Your task to perform on an android device: turn vacation reply on in the gmail app Image 0: 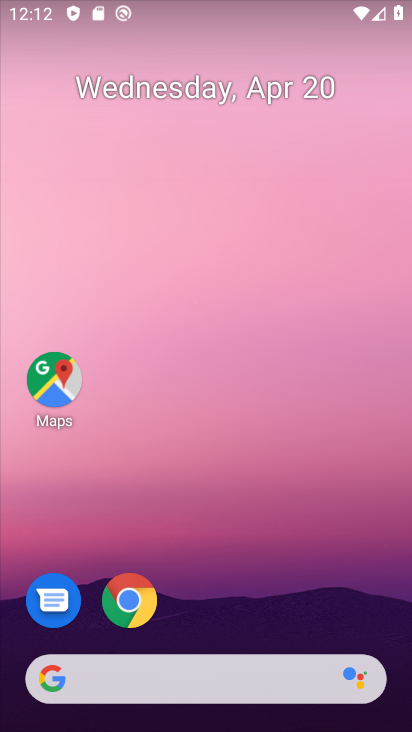
Step 0: drag from (357, 467) to (2, 433)
Your task to perform on an android device: turn vacation reply on in the gmail app Image 1: 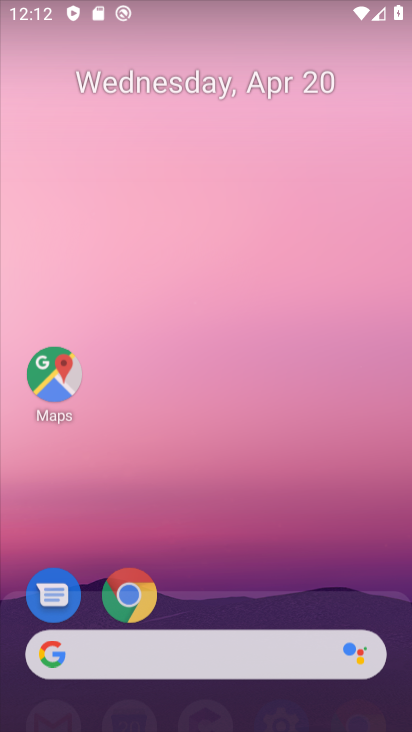
Step 1: drag from (8, 479) to (17, 0)
Your task to perform on an android device: turn vacation reply on in the gmail app Image 2: 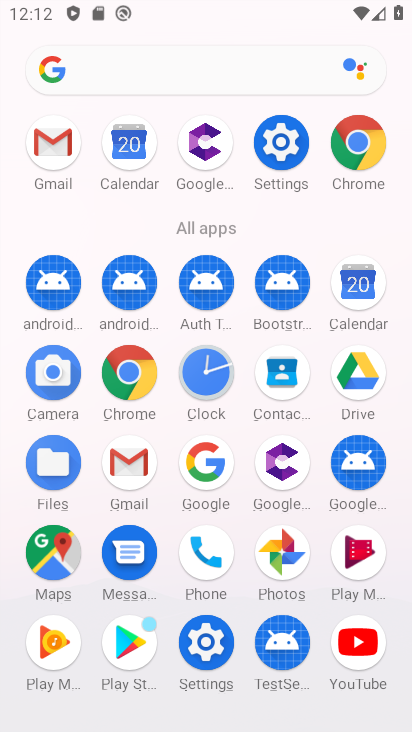
Step 2: drag from (3, 405) to (8, 272)
Your task to perform on an android device: turn vacation reply on in the gmail app Image 3: 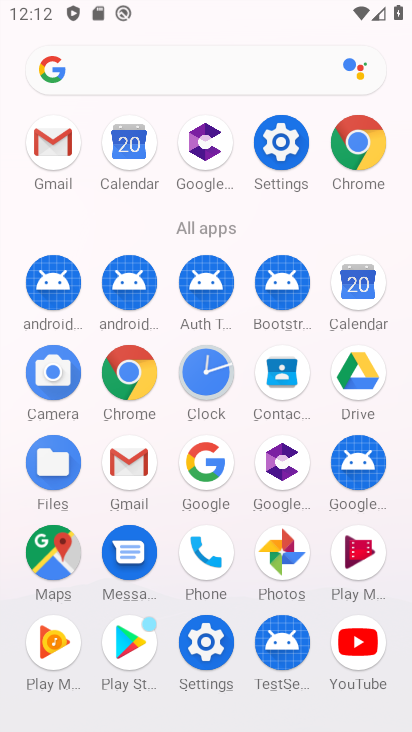
Step 3: drag from (0, 473) to (0, 278)
Your task to perform on an android device: turn vacation reply on in the gmail app Image 4: 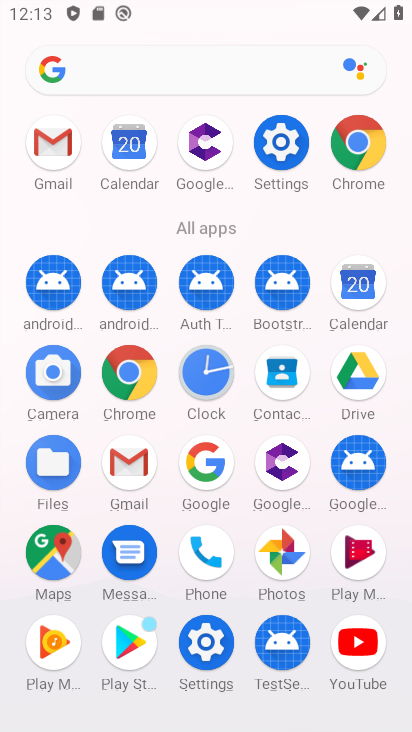
Step 4: click (127, 454)
Your task to perform on an android device: turn vacation reply on in the gmail app Image 5: 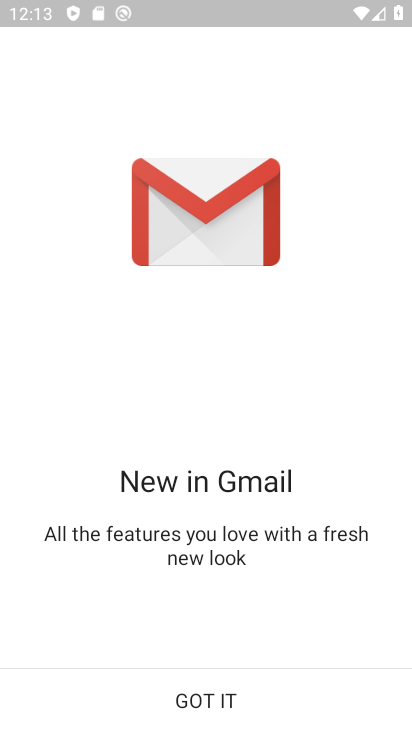
Step 5: click (192, 704)
Your task to perform on an android device: turn vacation reply on in the gmail app Image 6: 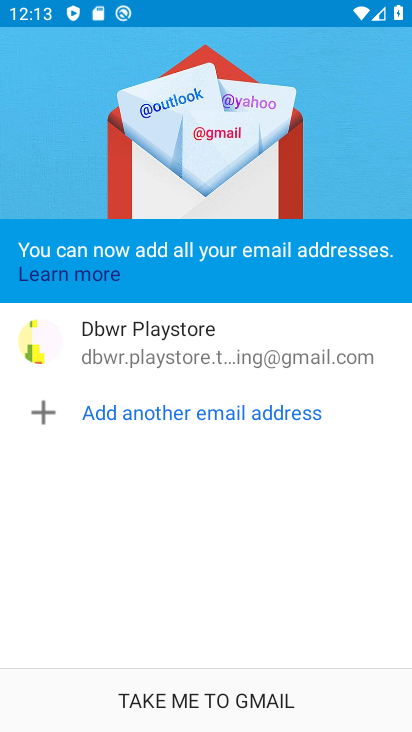
Step 6: click (195, 708)
Your task to perform on an android device: turn vacation reply on in the gmail app Image 7: 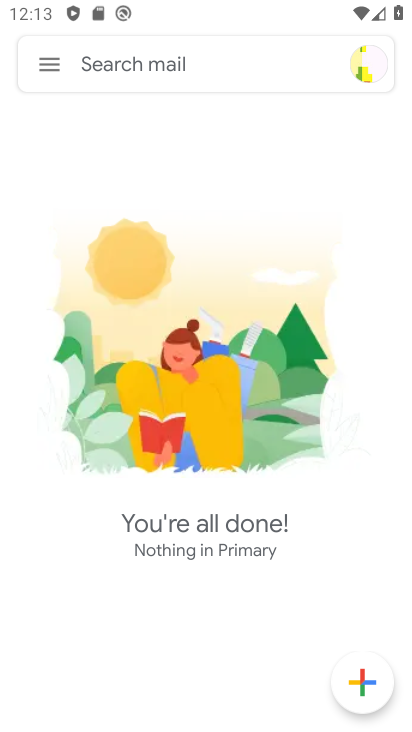
Step 7: click (45, 61)
Your task to perform on an android device: turn vacation reply on in the gmail app Image 8: 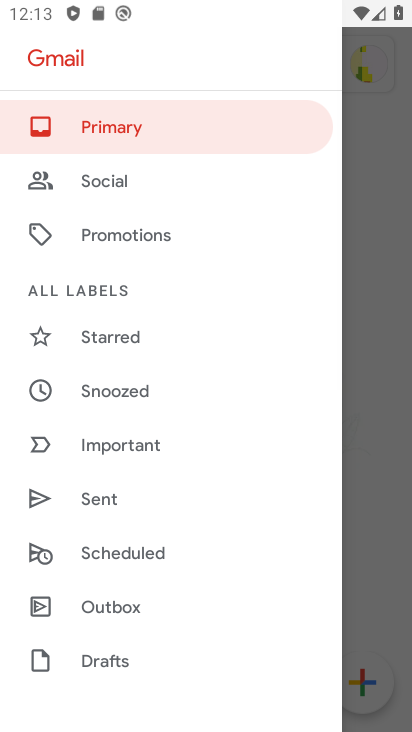
Step 8: drag from (216, 328) to (214, 184)
Your task to perform on an android device: turn vacation reply on in the gmail app Image 9: 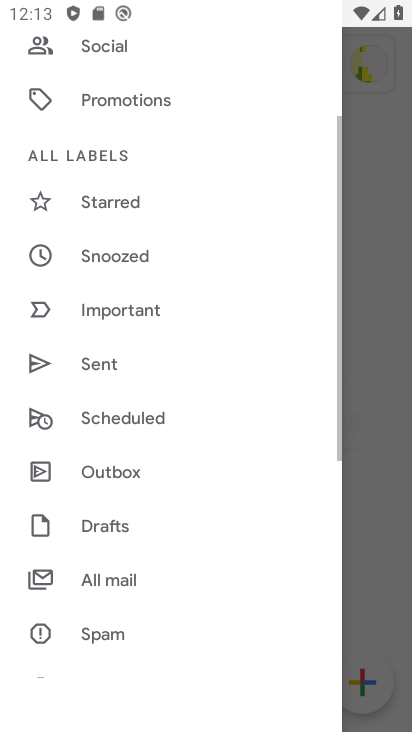
Step 9: drag from (211, 379) to (211, 123)
Your task to perform on an android device: turn vacation reply on in the gmail app Image 10: 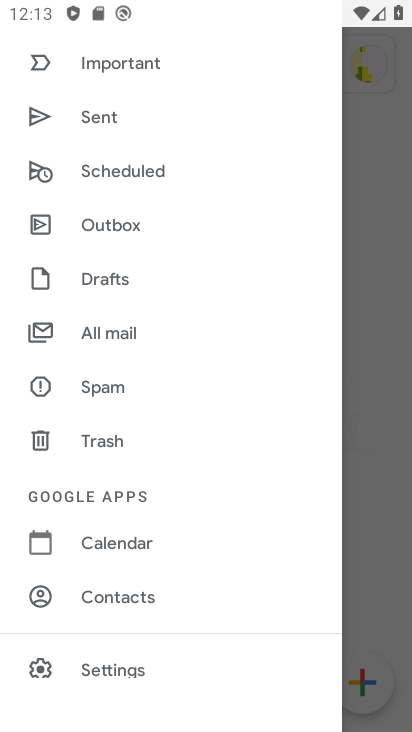
Step 10: click (114, 656)
Your task to perform on an android device: turn vacation reply on in the gmail app Image 11: 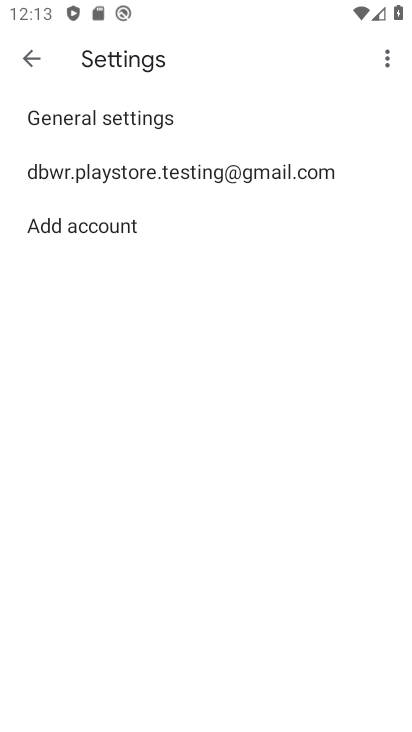
Step 11: click (218, 160)
Your task to perform on an android device: turn vacation reply on in the gmail app Image 12: 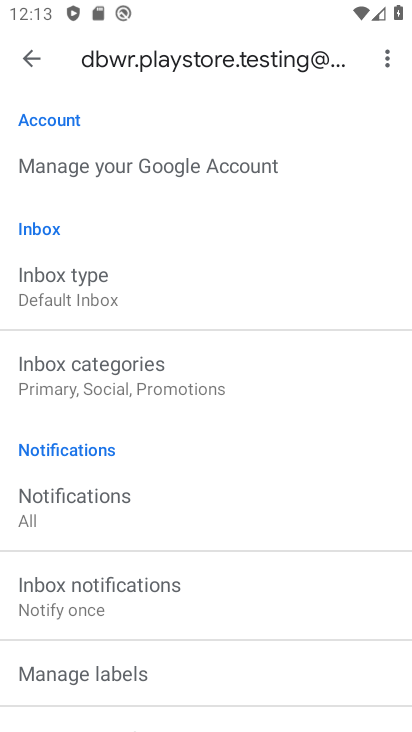
Step 12: drag from (235, 516) to (245, 156)
Your task to perform on an android device: turn vacation reply on in the gmail app Image 13: 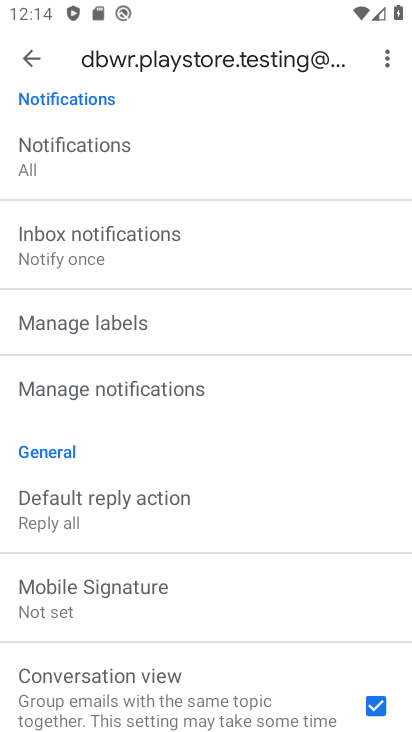
Step 13: drag from (226, 465) to (241, 131)
Your task to perform on an android device: turn vacation reply on in the gmail app Image 14: 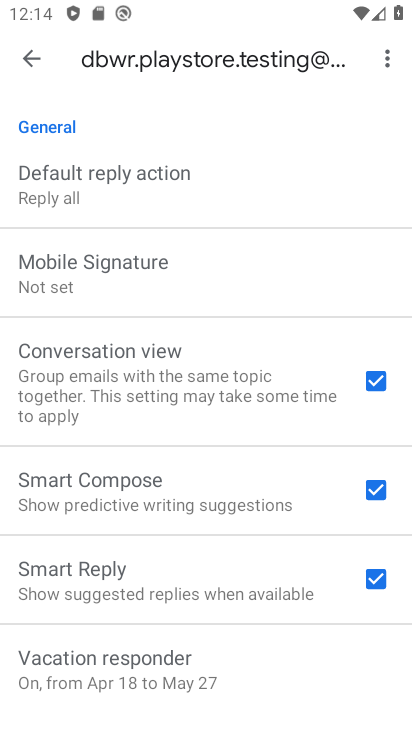
Step 14: click (191, 669)
Your task to perform on an android device: turn vacation reply on in the gmail app Image 15: 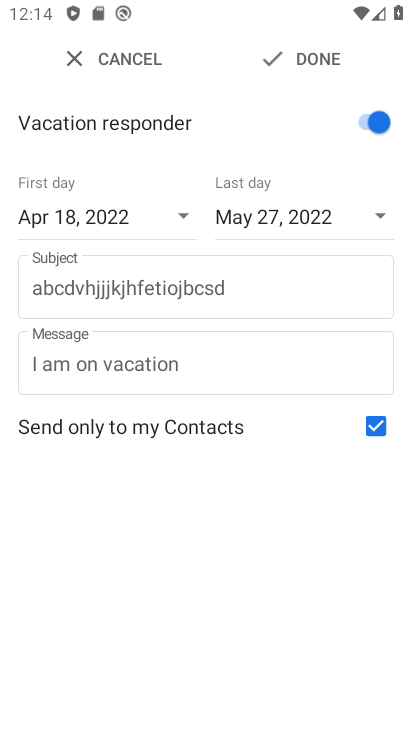
Step 15: click (286, 46)
Your task to perform on an android device: turn vacation reply on in the gmail app Image 16: 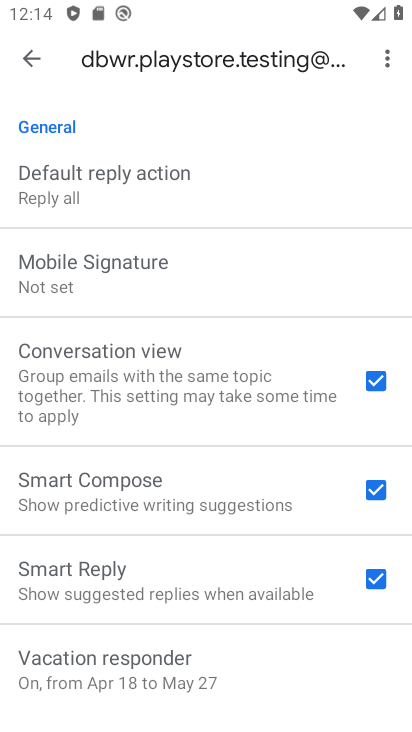
Step 16: task complete